Your task to perform on an android device: Go to Maps Image 0: 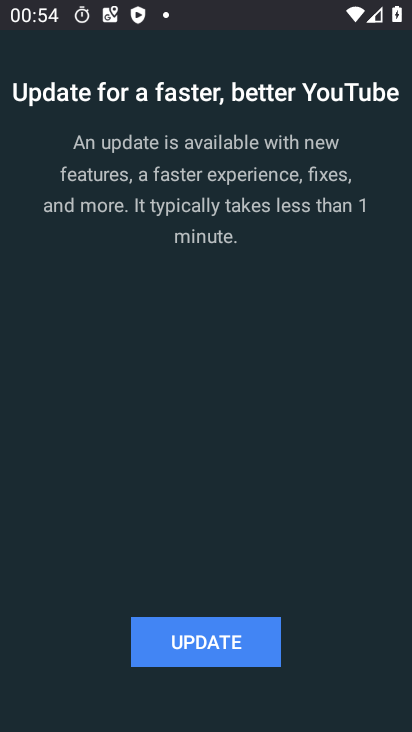
Step 0: click (360, 438)
Your task to perform on an android device: Go to Maps Image 1: 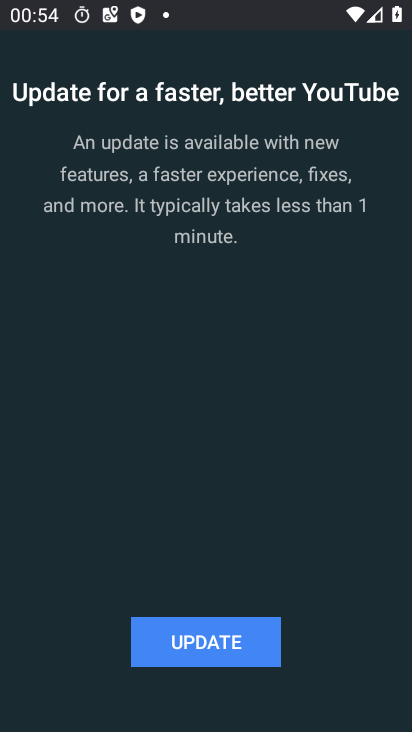
Step 1: press back button
Your task to perform on an android device: Go to Maps Image 2: 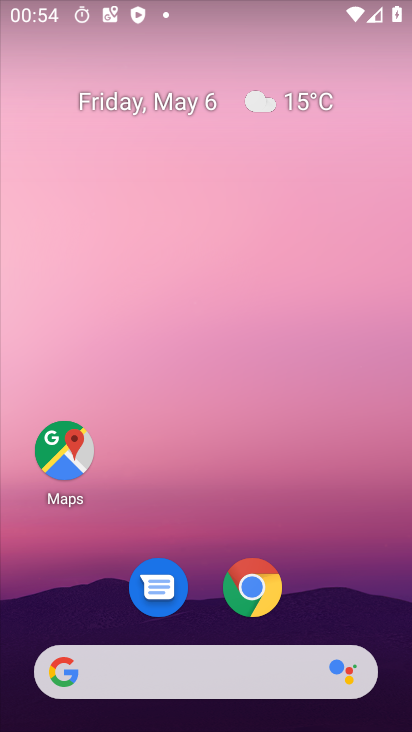
Step 2: click (66, 446)
Your task to perform on an android device: Go to Maps Image 3: 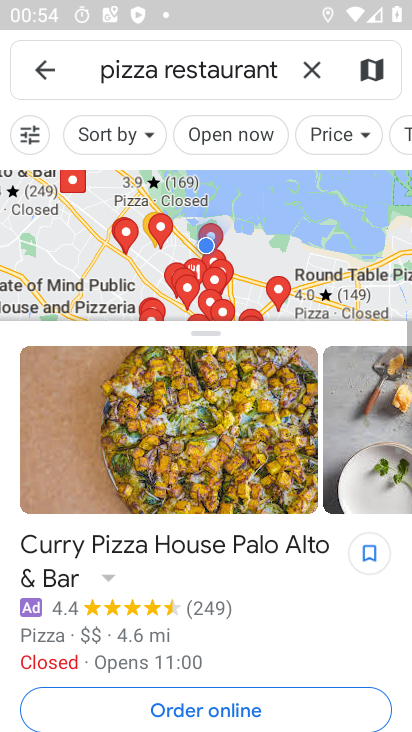
Step 3: click (36, 77)
Your task to perform on an android device: Go to Maps Image 4: 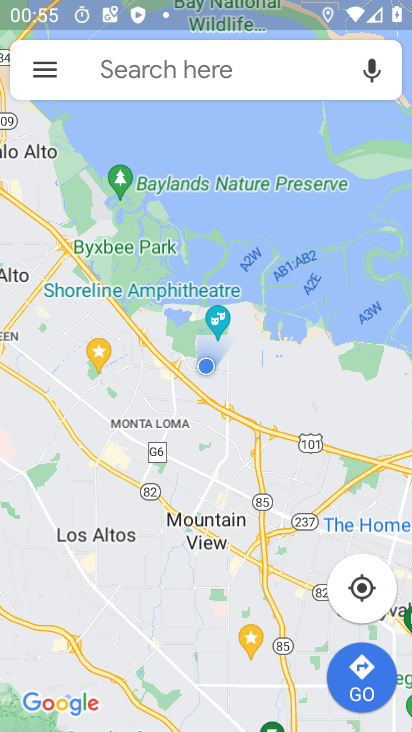
Step 4: task complete